Your task to perform on an android device: Go to settings Image 0: 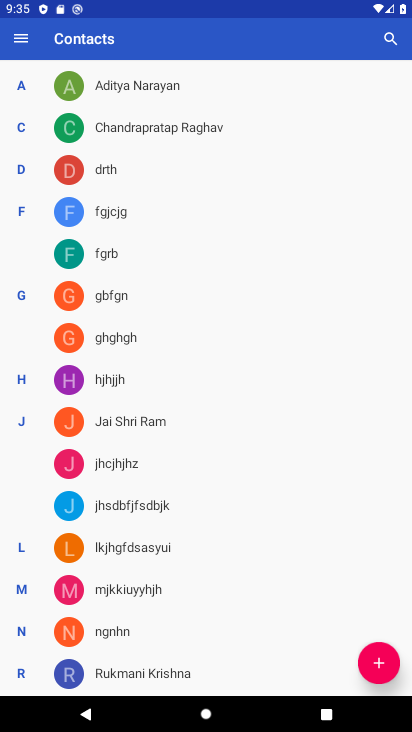
Step 0: press home button
Your task to perform on an android device: Go to settings Image 1: 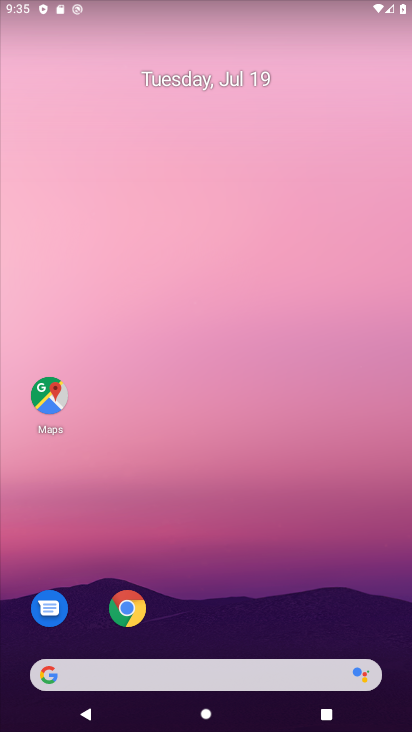
Step 1: drag from (270, 289) to (343, 7)
Your task to perform on an android device: Go to settings Image 2: 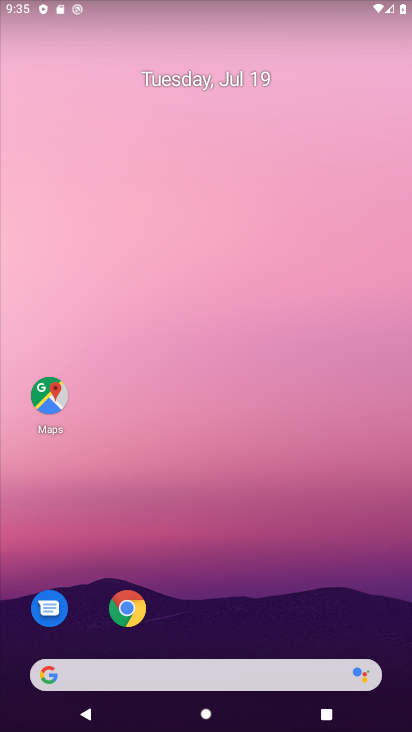
Step 2: drag from (199, 140) to (296, 0)
Your task to perform on an android device: Go to settings Image 3: 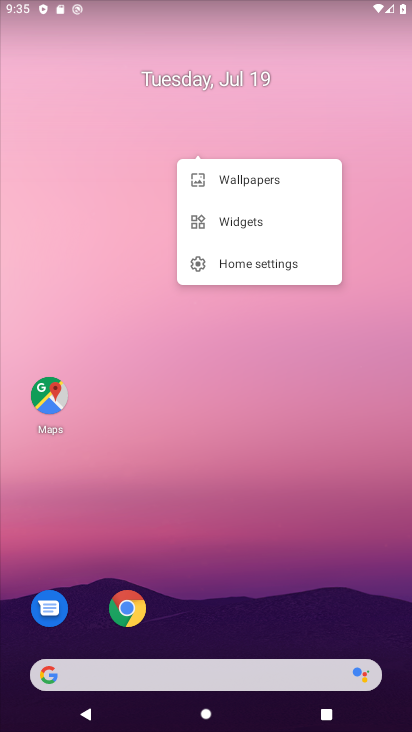
Step 3: click (364, 322)
Your task to perform on an android device: Go to settings Image 4: 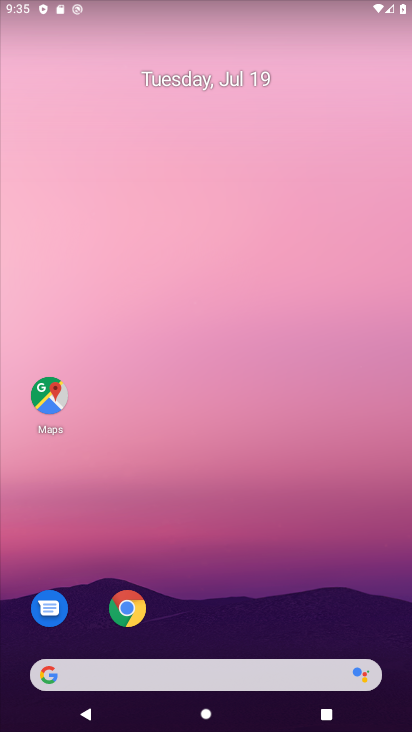
Step 4: drag from (264, 570) to (263, 44)
Your task to perform on an android device: Go to settings Image 5: 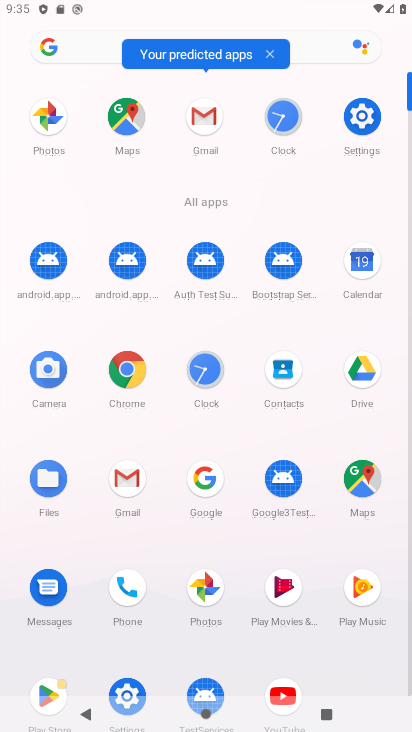
Step 5: click (358, 107)
Your task to perform on an android device: Go to settings Image 6: 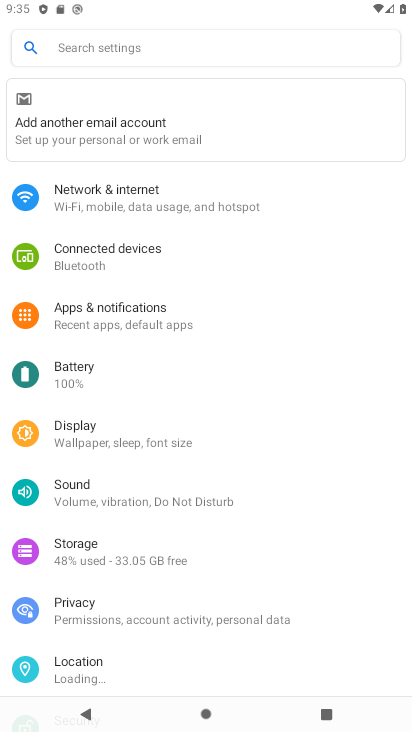
Step 6: task complete